Your task to perform on an android device: Go to Google maps Image 0: 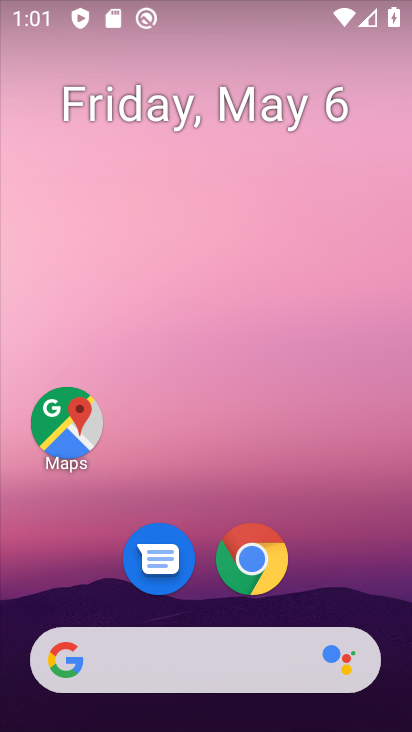
Step 0: drag from (184, 601) to (241, 100)
Your task to perform on an android device: Go to Google maps Image 1: 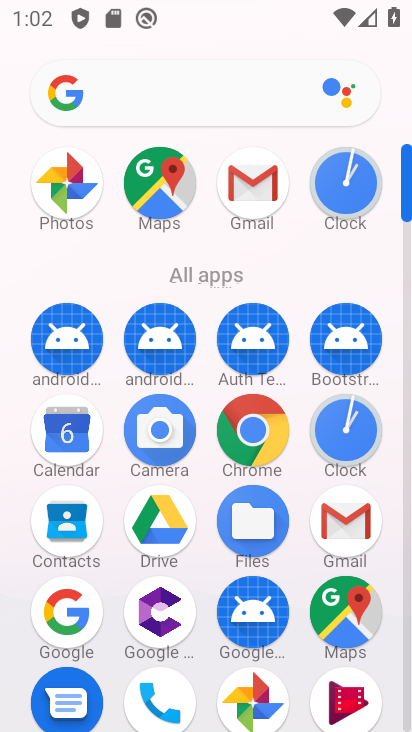
Step 1: click (165, 184)
Your task to perform on an android device: Go to Google maps Image 2: 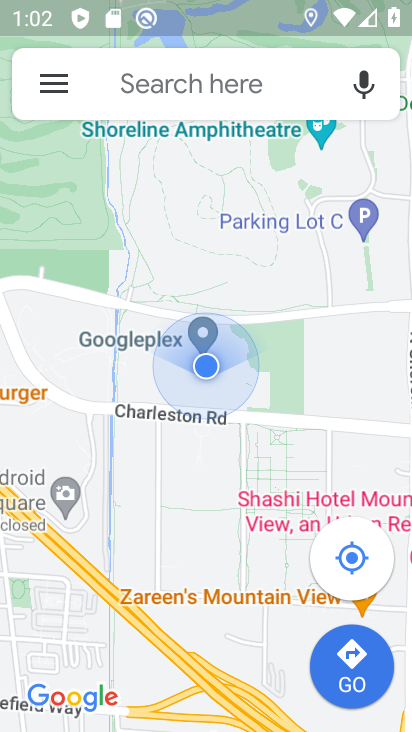
Step 2: task complete